Your task to perform on an android device: Search for Italian restaurants on Maps Image 0: 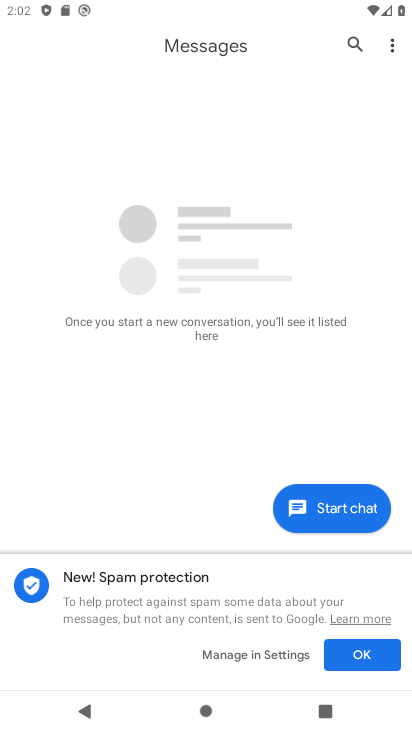
Step 0: press back button
Your task to perform on an android device: Search for Italian restaurants on Maps Image 1: 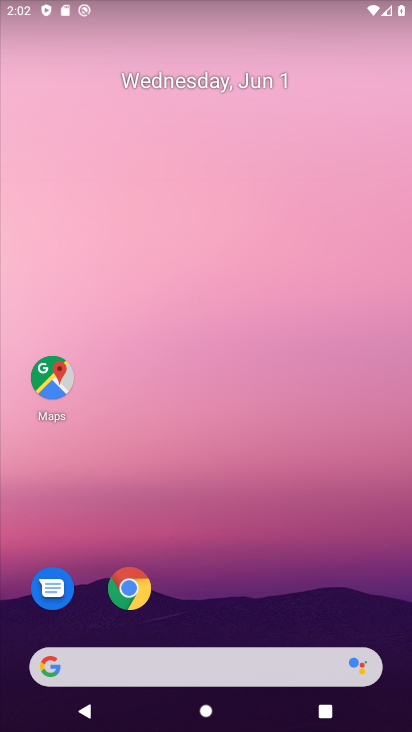
Step 1: click (41, 378)
Your task to perform on an android device: Search for Italian restaurants on Maps Image 2: 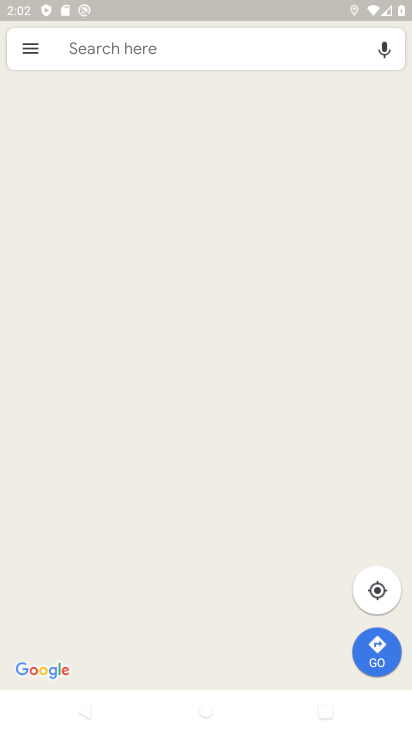
Step 2: click (108, 37)
Your task to perform on an android device: Search for Italian restaurants on Maps Image 3: 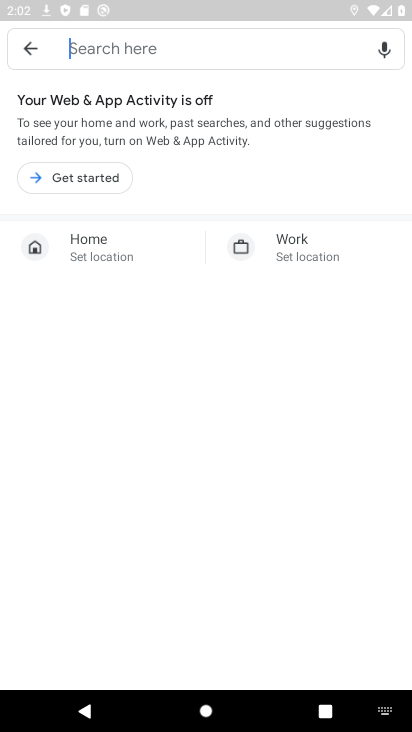
Step 3: click (119, 49)
Your task to perform on an android device: Search for Italian restaurants on Maps Image 4: 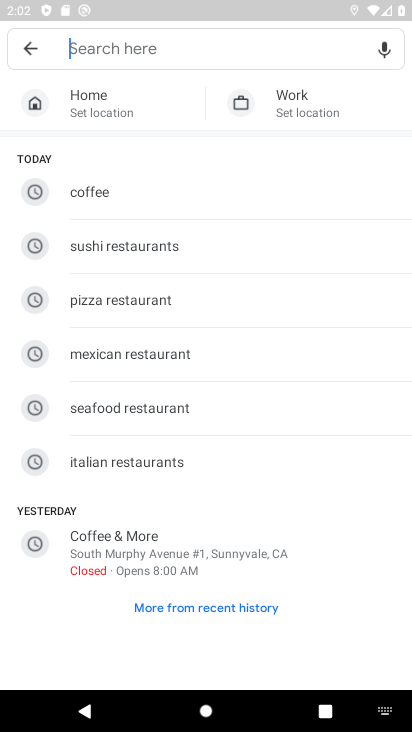
Step 4: type "italian"
Your task to perform on an android device: Search for Italian restaurants on Maps Image 5: 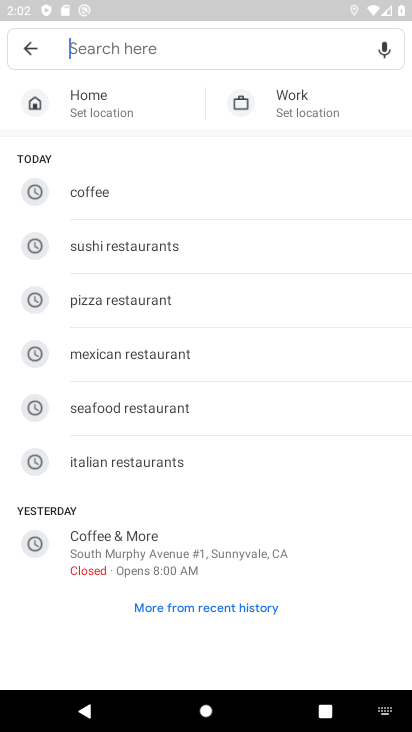
Step 5: click (102, 462)
Your task to perform on an android device: Search for Italian restaurants on Maps Image 6: 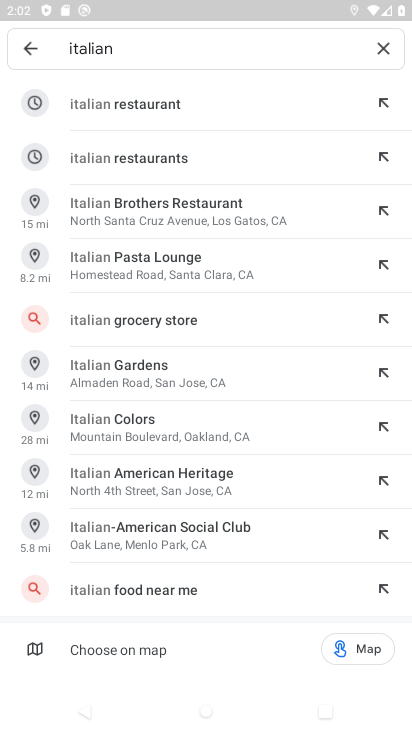
Step 6: click (128, 101)
Your task to perform on an android device: Search for Italian restaurants on Maps Image 7: 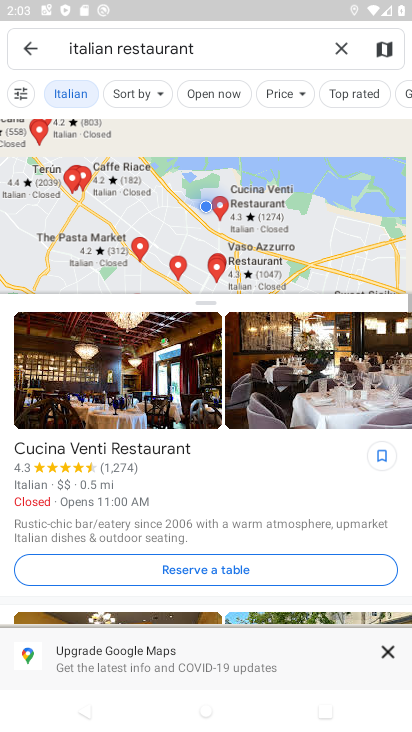
Step 7: task complete